Your task to perform on an android device: check storage Image 0: 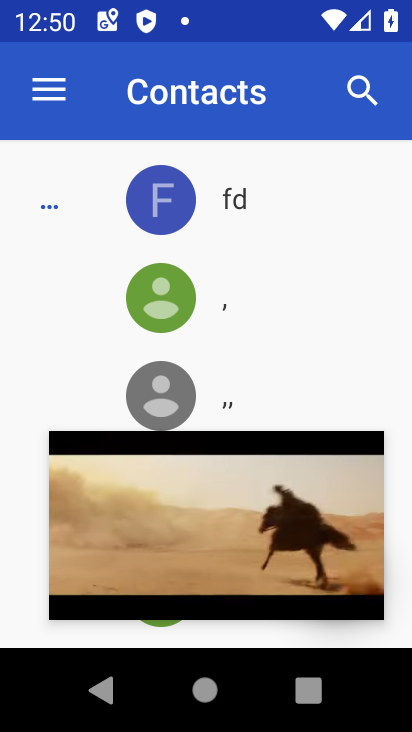
Step 0: press home button
Your task to perform on an android device: check storage Image 1: 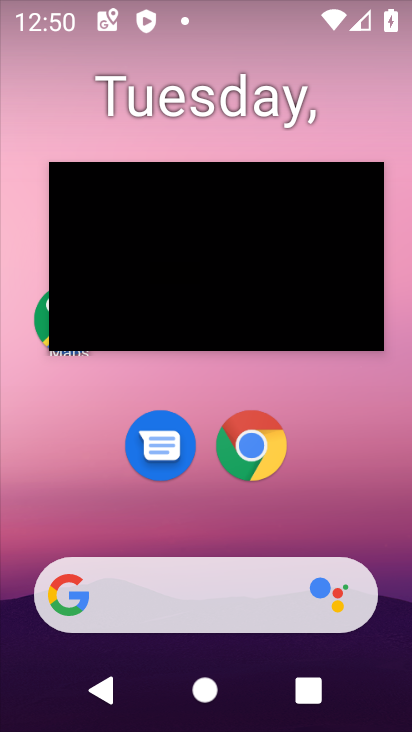
Step 1: click (341, 168)
Your task to perform on an android device: check storage Image 2: 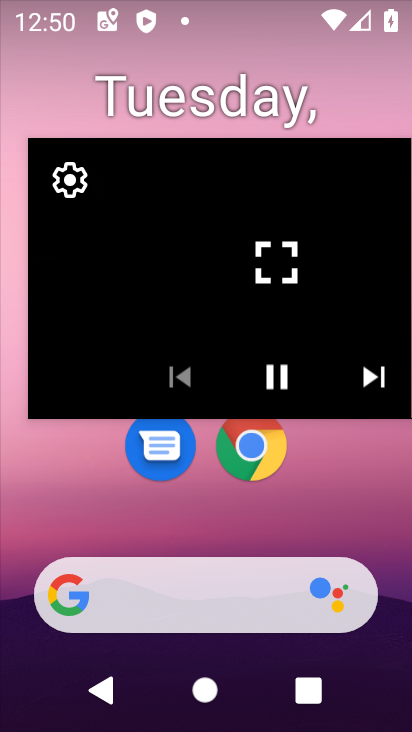
Step 2: click (372, 188)
Your task to perform on an android device: check storage Image 3: 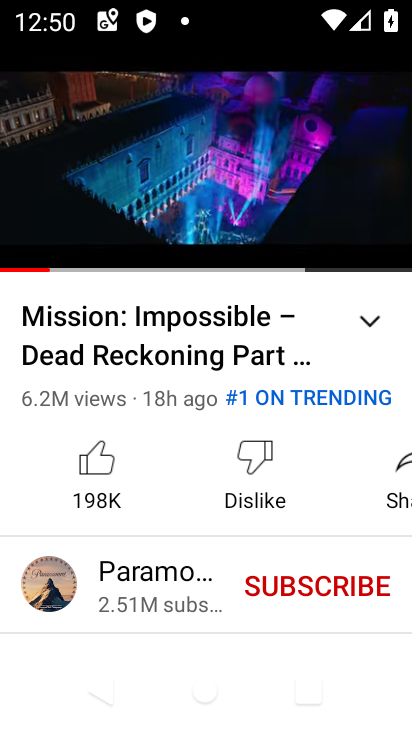
Step 3: click (393, 172)
Your task to perform on an android device: check storage Image 4: 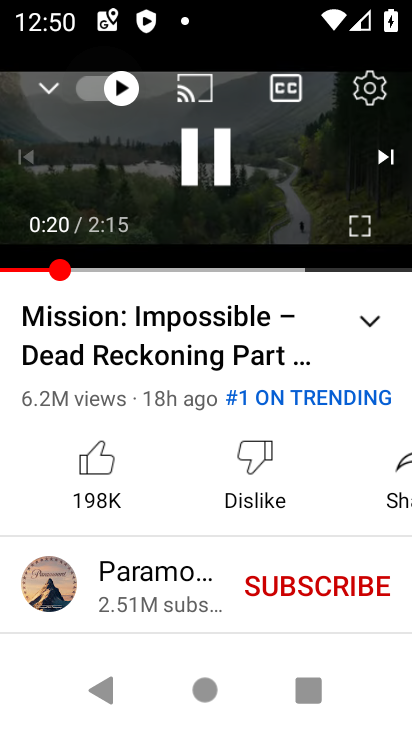
Step 4: press home button
Your task to perform on an android device: check storage Image 5: 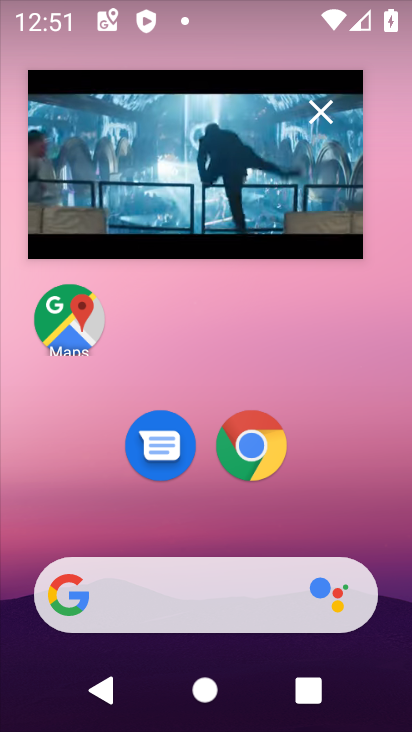
Step 5: click (322, 117)
Your task to perform on an android device: check storage Image 6: 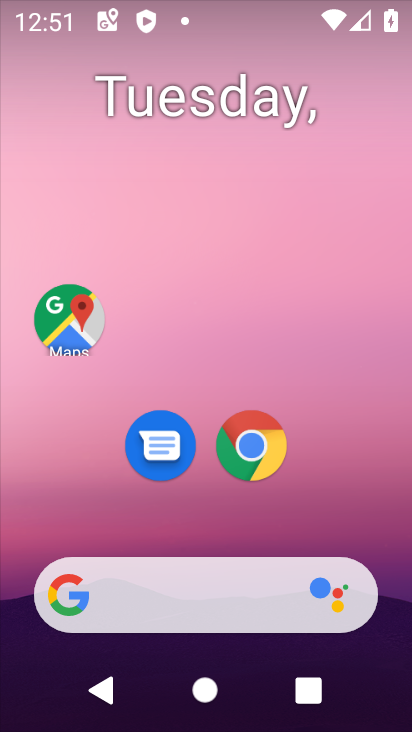
Step 6: drag from (367, 568) to (364, 31)
Your task to perform on an android device: check storage Image 7: 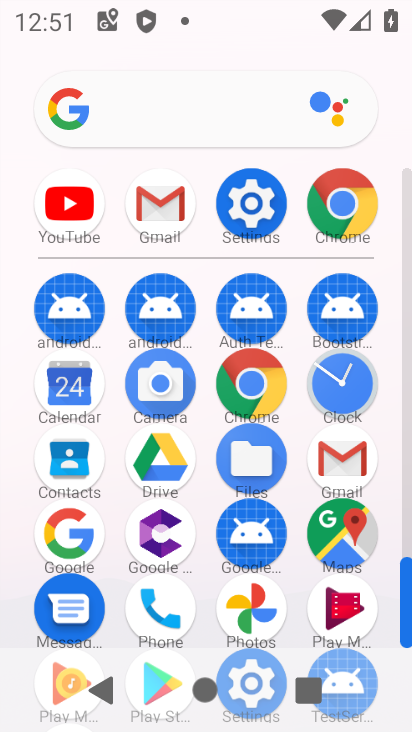
Step 7: click (248, 180)
Your task to perform on an android device: check storage Image 8: 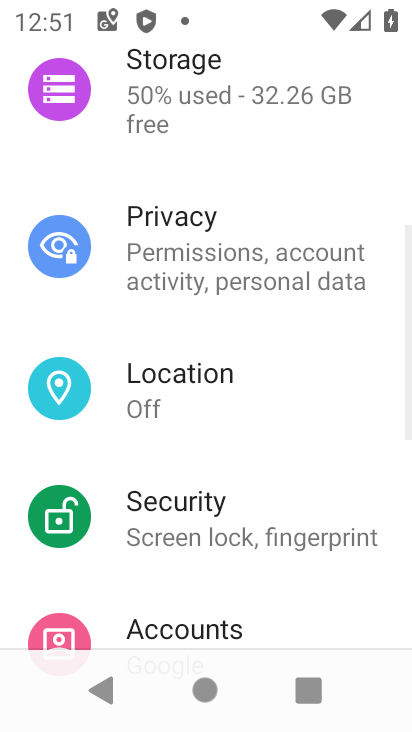
Step 8: drag from (248, 180) to (280, 650)
Your task to perform on an android device: check storage Image 9: 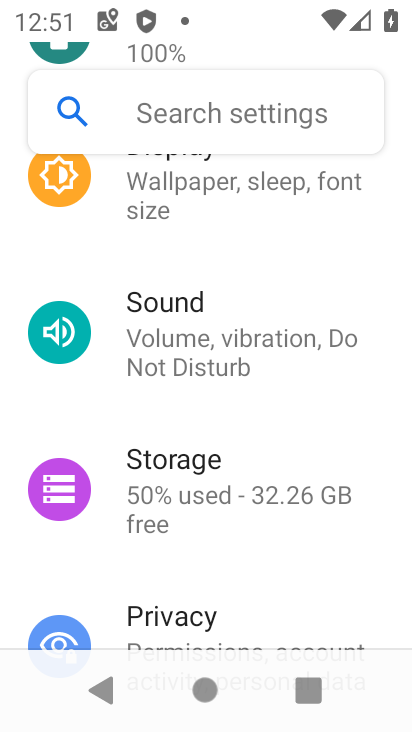
Step 9: drag from (234, 213) to (241, 633)
Your task to perform on an android device: check storage Image 10: 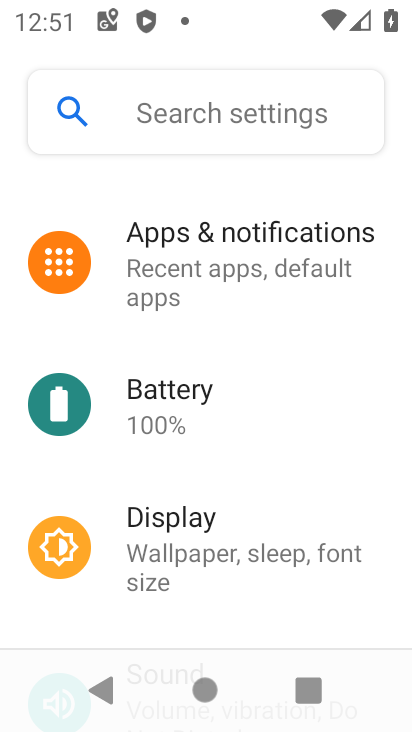
Step 10: drag from (231, 577) to (255, 190)
Your task to perform on an android device: check storage Image 11: 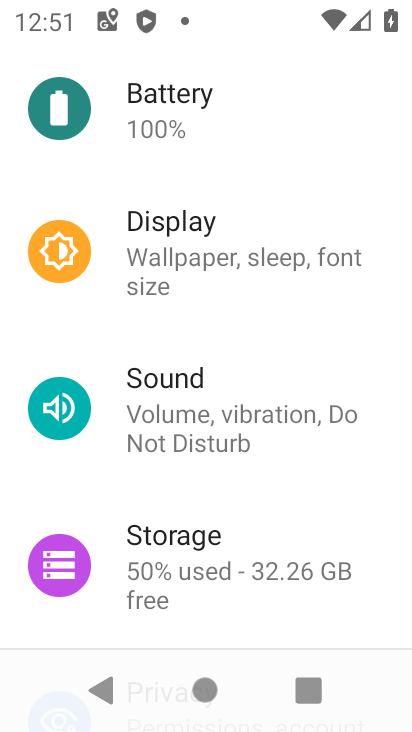
Step 11: drag from (191, 515) to (224, 229)
Your task to perform on an android device: check storage Image 12: 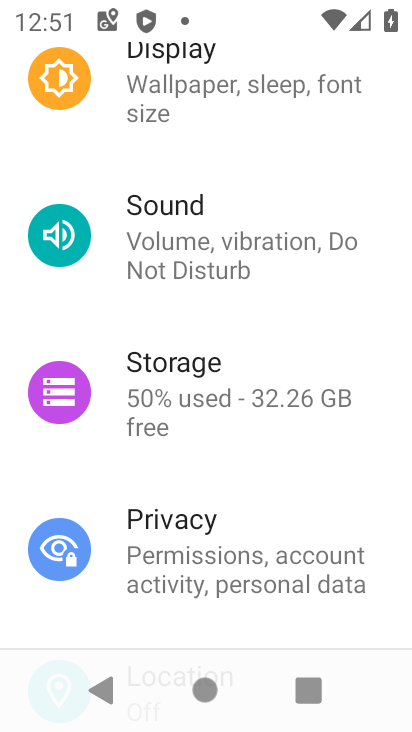
Step 12: drag from (209, 573) to (298, 90)
Your task to perform on an android device: check storage Image 13: 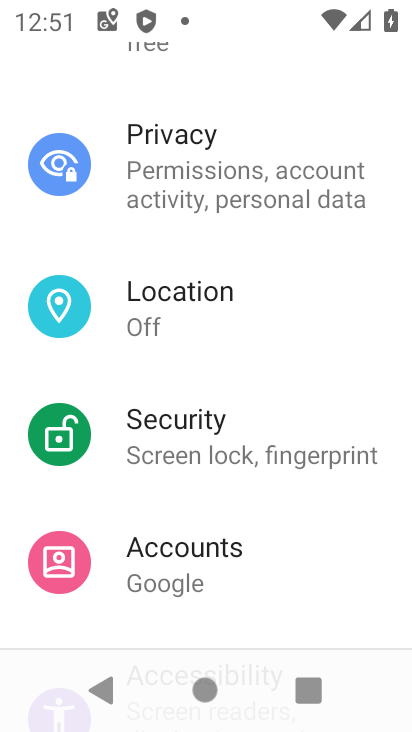
Step 13: drag from (238, 211) to (271, 552)
Your task to perform on an android device: check storage Image 14: 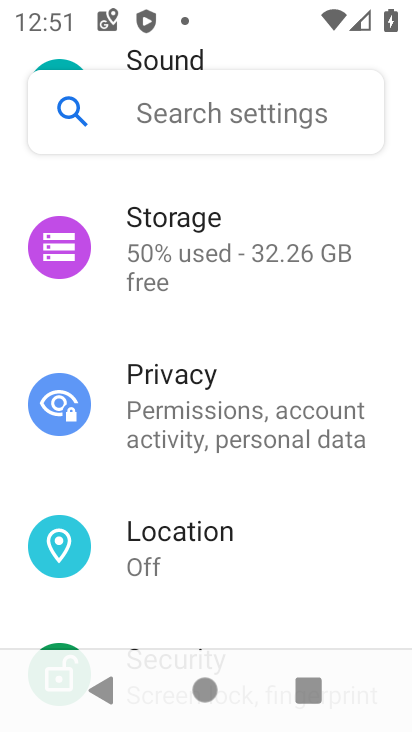
Step 14: click (182, 245)
Your task to perform on an android device: check storage Image 15: 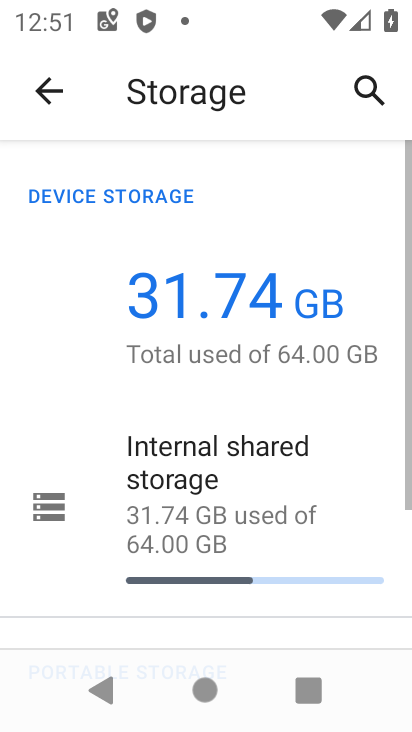
Step 15: drag from (233, 518) to (302, 72)
Your task to perform on an android device: check storage Image 16: 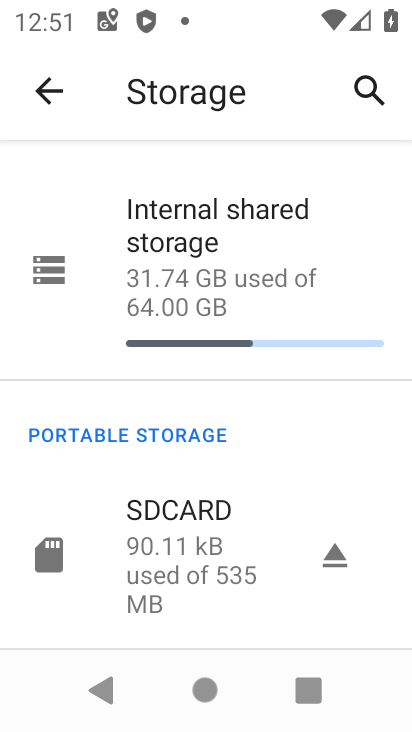
Step 16: click (237, 308)
Your task to perform on an android device: check storage Image 17: 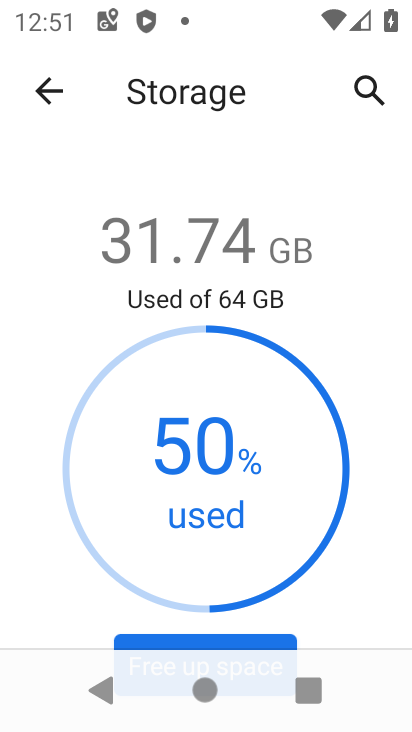
Step 17: task complete